Your task to perform on an android device: How do I get to the nearest Sprint Store? Image 0: 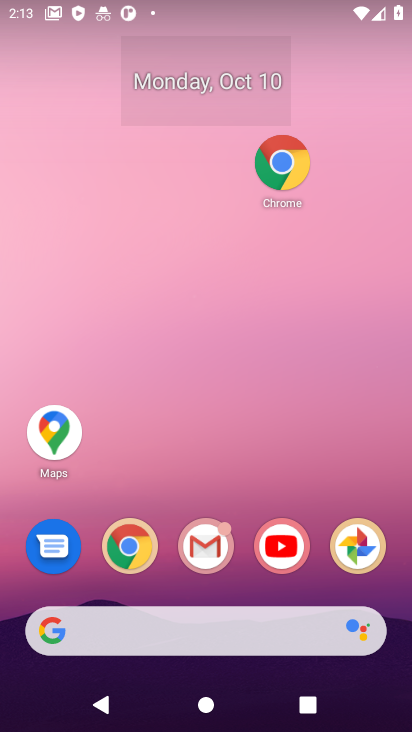
Step 0: click (135, 547)
Your task to perform on an android device: How do I get to the nearest Sprint Store? Image 1: 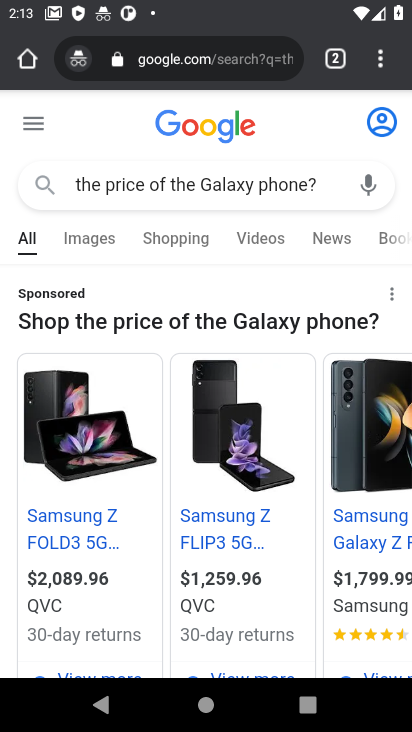
Step 1: click (338, 182)
Your task to perform on an android device: How do I get to the nearest Sprint Store? Image 2: 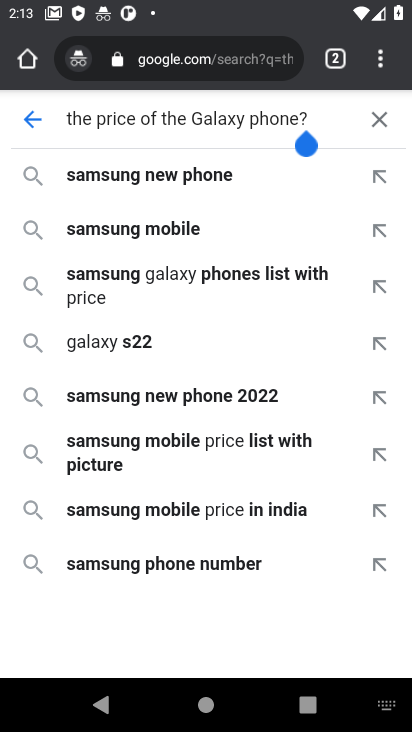
Step 2: click (388, 122)
Your task to perform on an android device: How do I get to the nearest Sprint Store? Image 3: 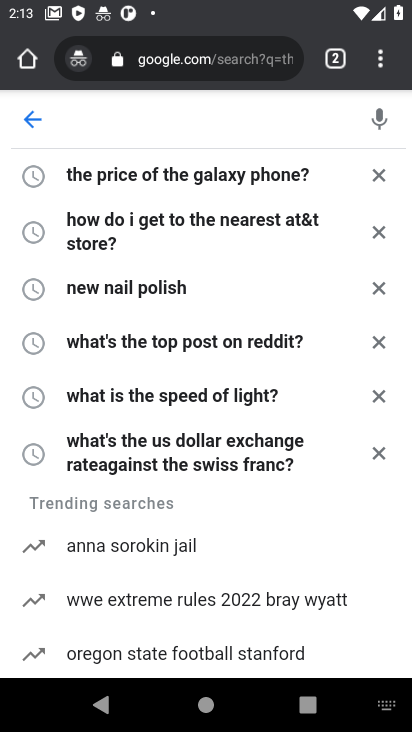
Step 3: type "How do I get to the nearest Sprint Store?"
Your task to perform on an android device: How do I get to the nearest Sprint Store? Image 4: 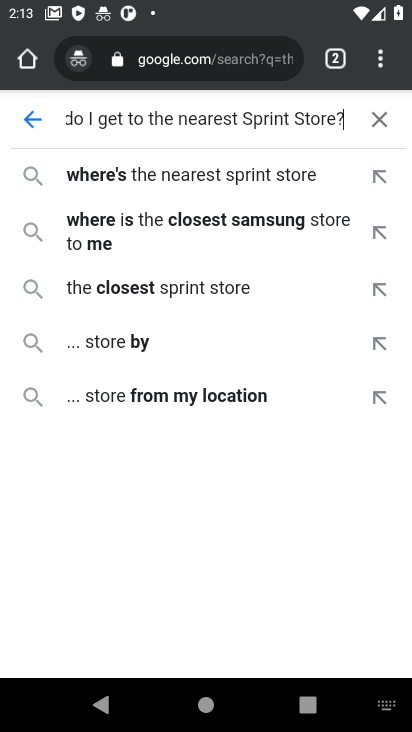
Step 4: click (191, 168)
Your task to perform on an android device: How do I get to the nearest Sprint Store? Image 5: 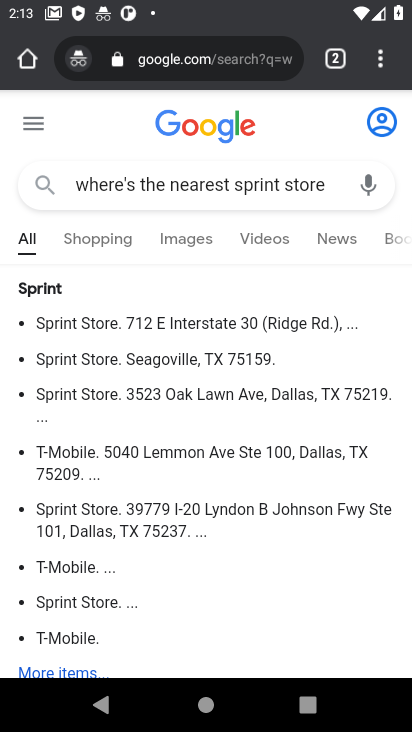
Step 5: task complete